Your task to perform on an android device: See recent photos Image 0: 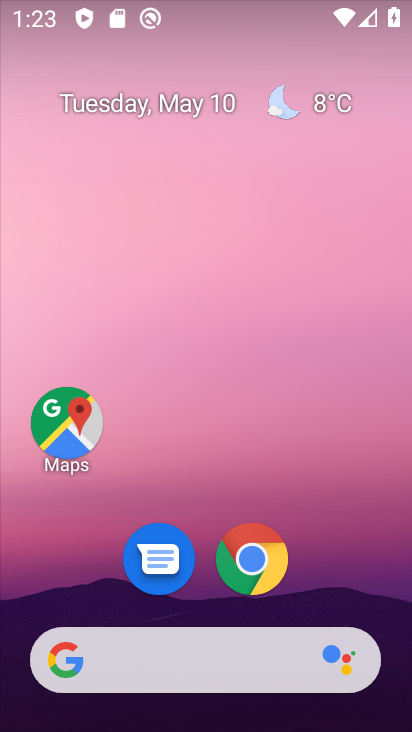
Step 0: drag from (85, 613) to (251, 58)
Your task to perform on an android device: See recent photos Image 1: 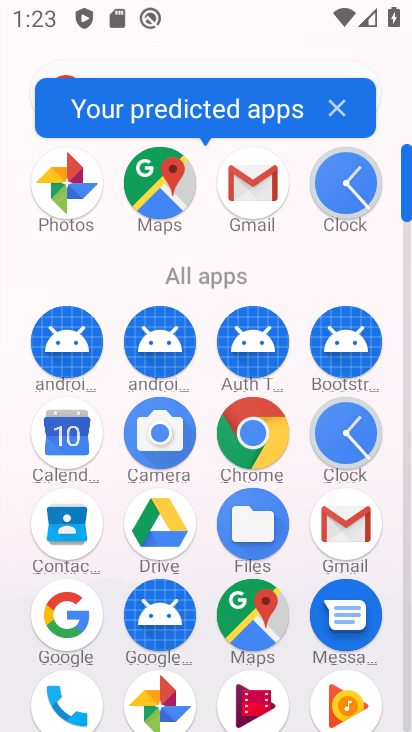
Step 1: drag from (185, 664) to (227, 375)
Your task to perform on an android device: See recent photos Image 2: 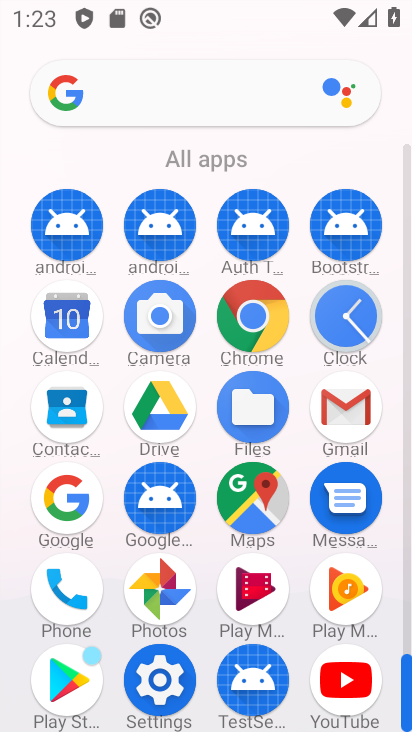
Step 2: click (171, 581)
Your task to perform on an android device: See recent photos Image 3: 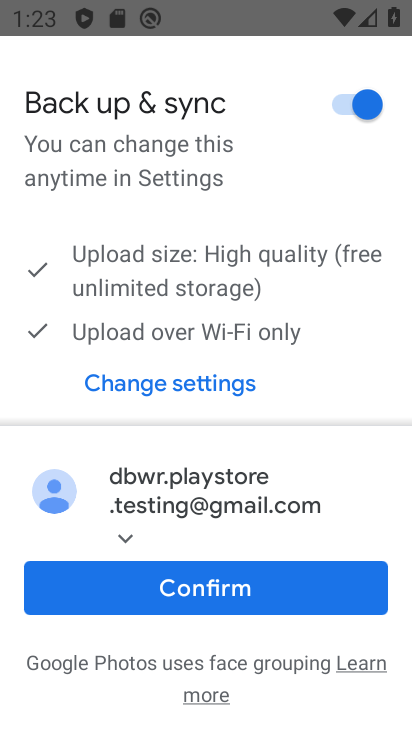
Step 3: click (265, 588)
Your task to perform on an android device: See recent photos Image 4: 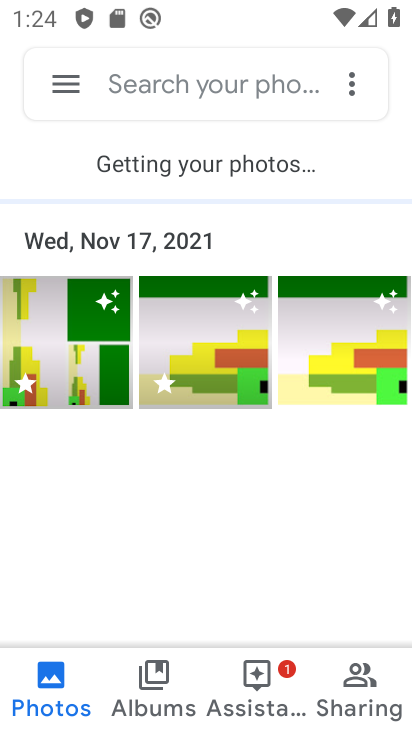
Step 4: task complete